Your task to perform on an android device: Open Maps and search for coffee Image 0: 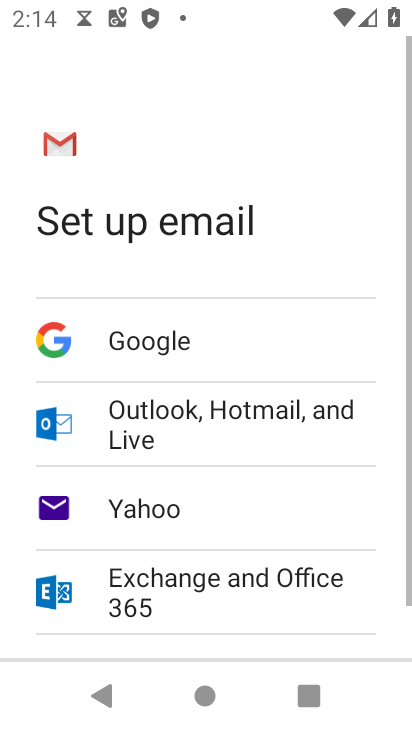
Step 0: press home button
Your task to perform on an android device: Open Maps and search for coffee Image 1: 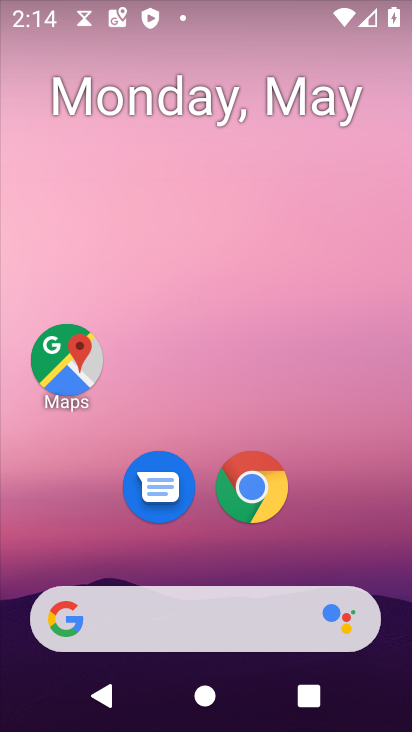
Step 1: click (80, 351)
Your task to perform on an android device: Open Maps and search for coffee Image 2: 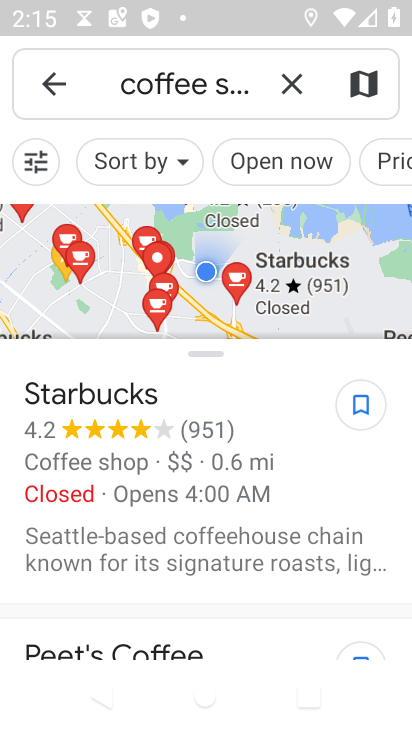
Step 2: task complete